Your task to perform on an android device: Check the weather Image 0: 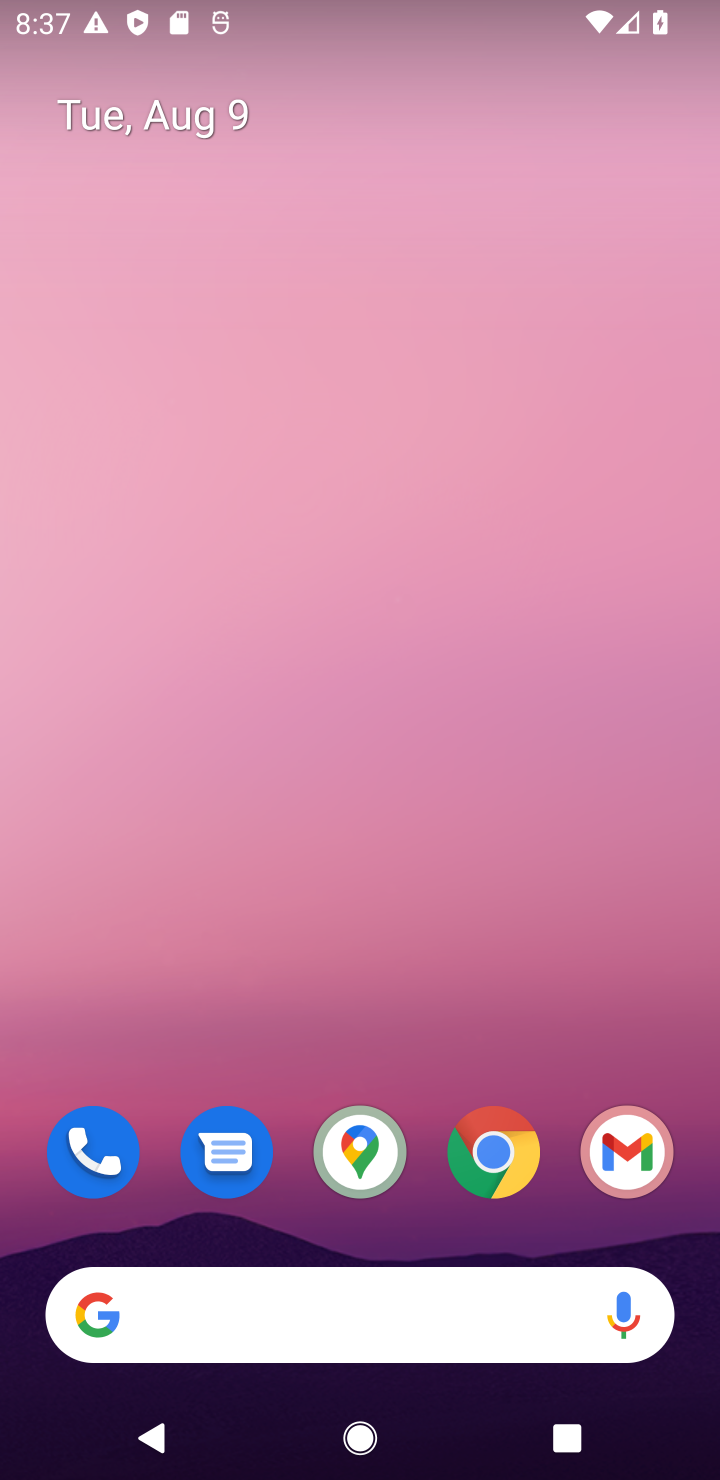
Step 0: click (402, 1343)
Your task to perform on an android device: Check the weather Image 1: 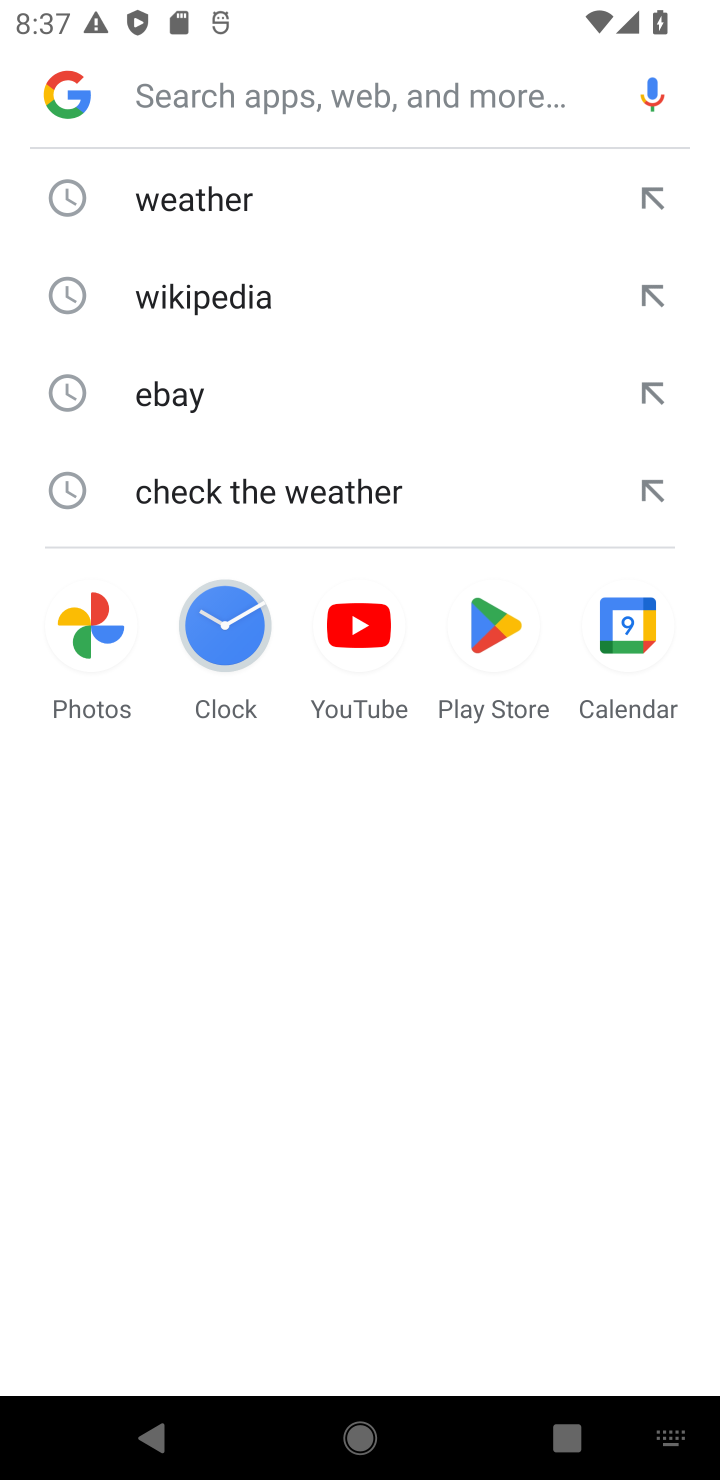
Step 1: click (273, 174)
Your task to perform on an android device: Check the weather Image 2: 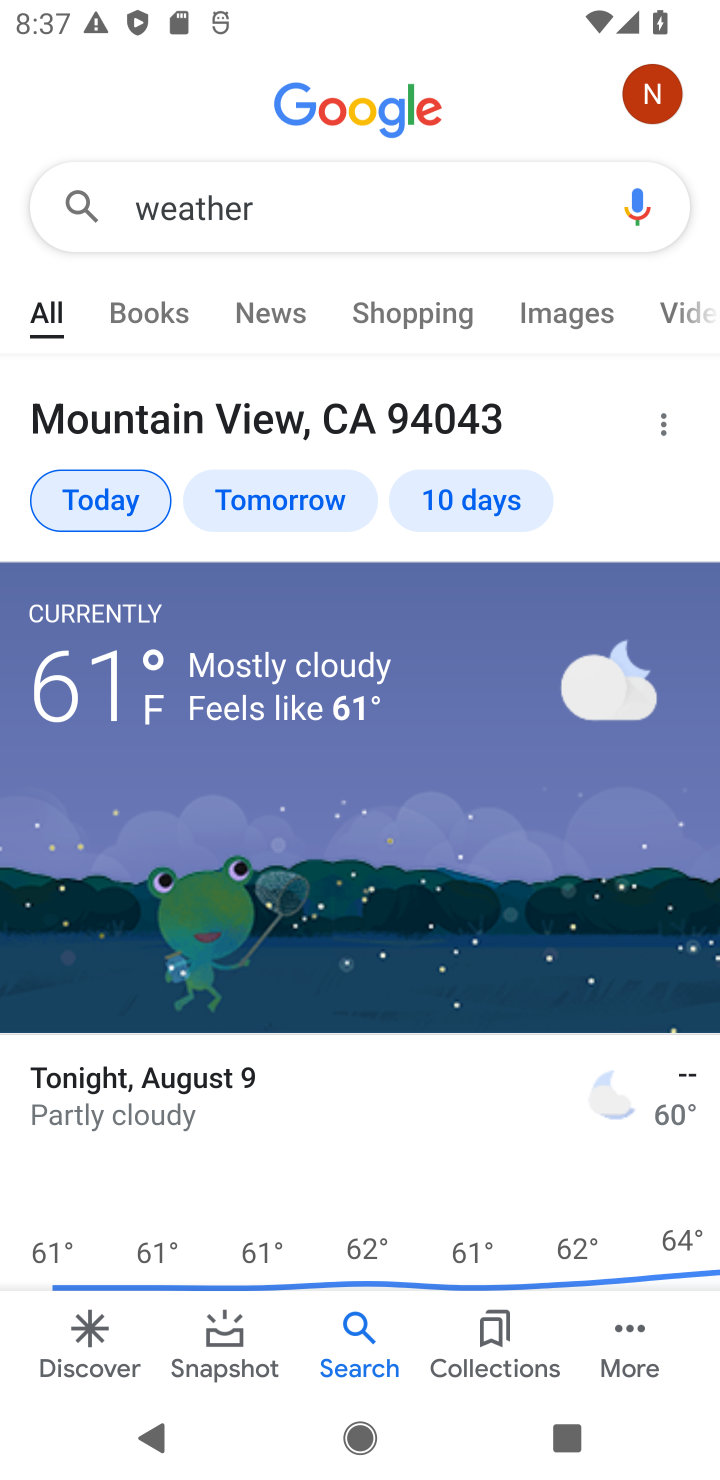
Step 2: task complete